Your task to perform on an android device: uninstall "Google Chat" Image 0: 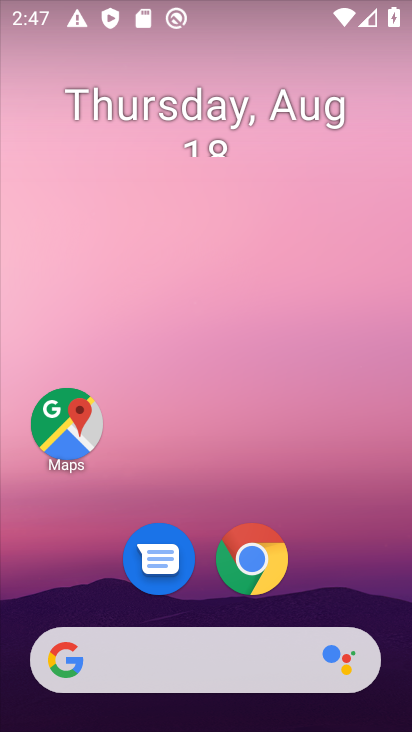
Step 0: drag from (225, 589) to (228, 125)
Your task to perform on an android device: uninstall "Google Chat" Image 1: 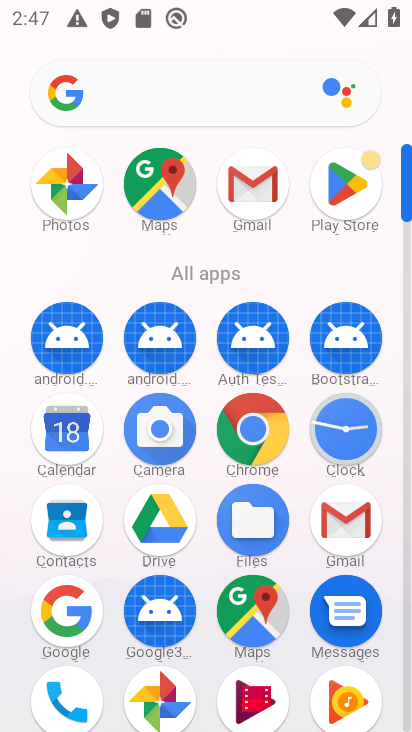
Step 1: click (355, 189)
Your task to perform on an android device: uninstall "Google Chat" Image 2: 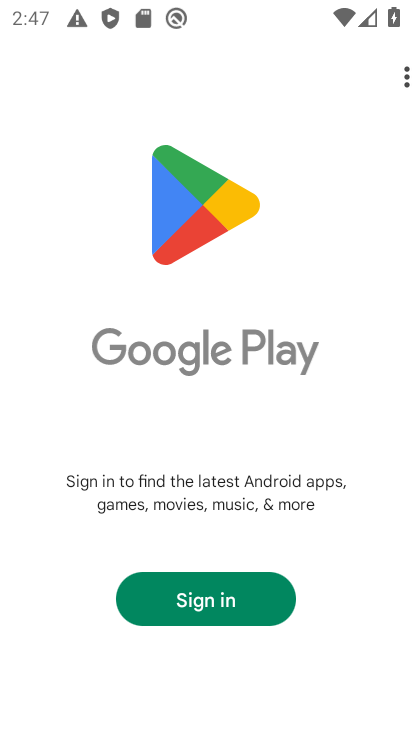
Step 2: click (190, 605)
Your task to perform on an android device: uninstall "Google Chat" Image 3: 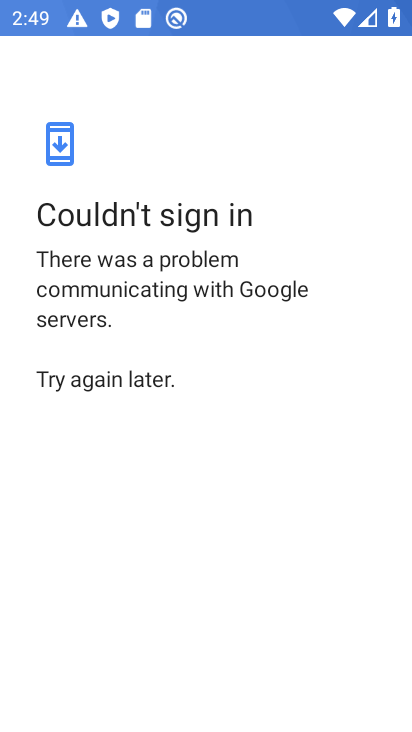
Step 3: press home button
Your task to perform on an android device: uninstall "Google Chat" Image 4: 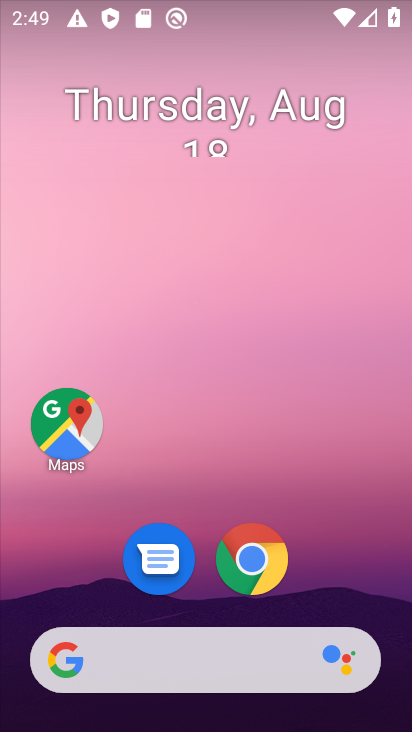
Step 4: drag from (276, 636) to (318, 114)
Your task to perform on an android device: uninstall "Google Chat" Image 5: 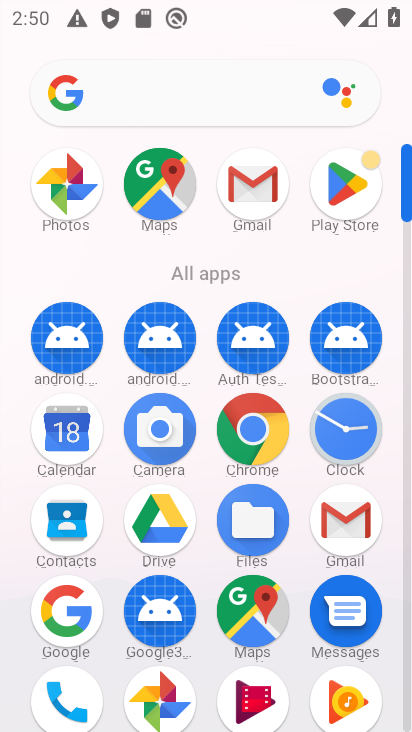
Step 5: click (328, 187)
Your task to perform on an android device: uninstall "Google Chat" Image 6: 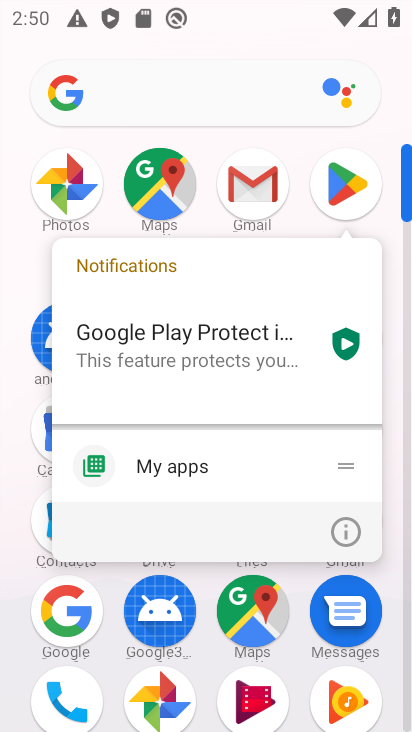
Step 6: click (341, 189)
Your task to perform on an android device: uninstall "Google Chat" Image 7: 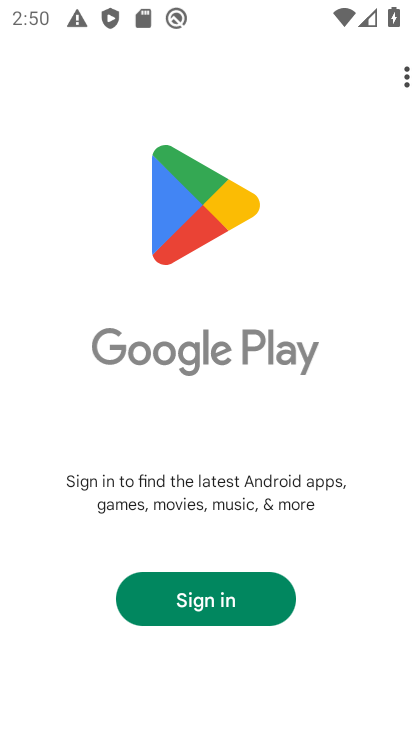
Step 7: click (199, 618)
Your task to perform on an android device: uninstall "Google Chat" Image 8: 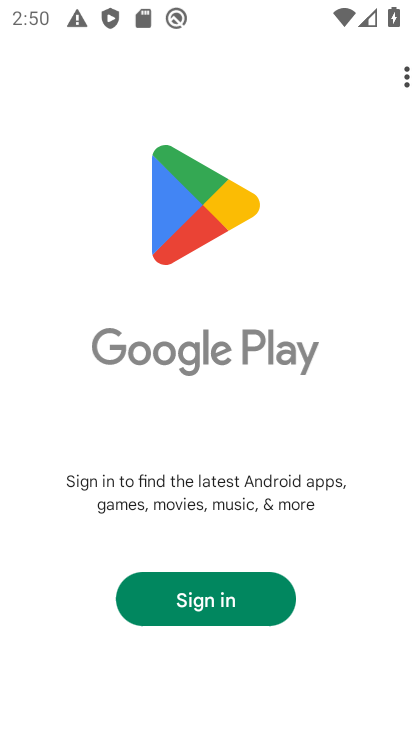
Step 8: click (198, 617)
Your task to perform on an android device: uninstall "Google Chat" Image 9: 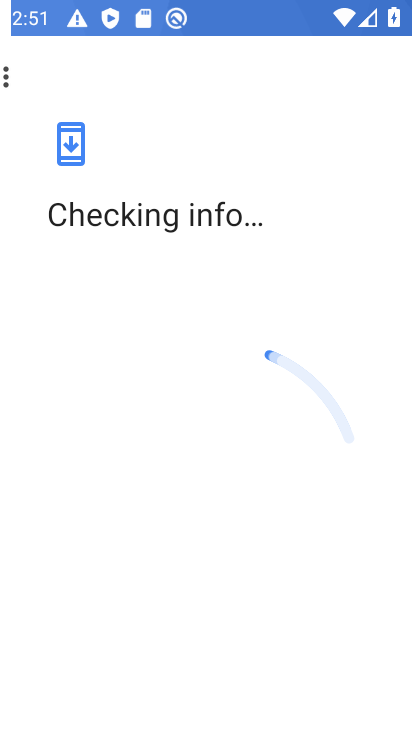
Step 9: click (197, 617)
Your task to perform on an android device: uninstall "Google Chat" Image 10: 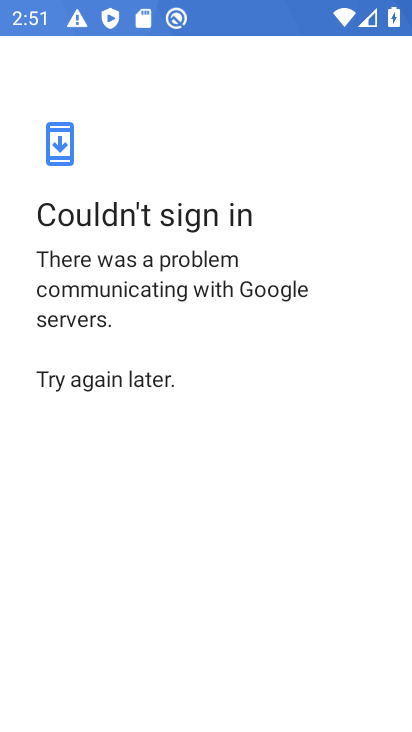
Step 10: task complete